Your task to perform on an android device: Open Google Image 0: 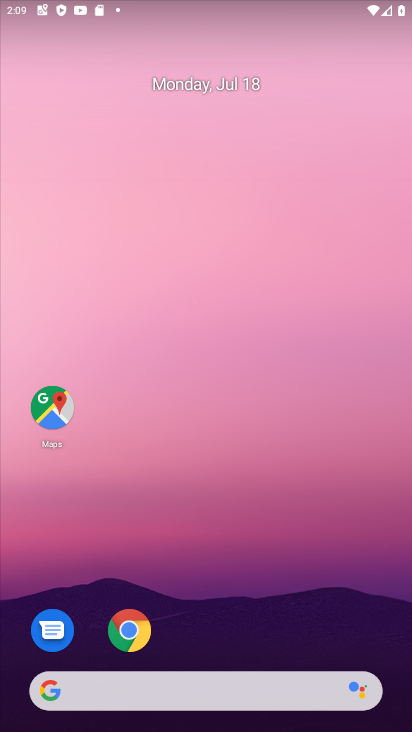
Step 0: click (129, 630)
Your task to perform on an android device: Open Google Image 1: 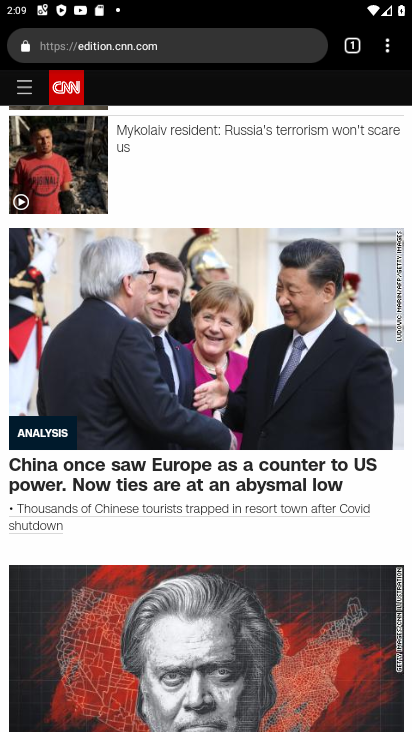
Step 1: task complete